Your task to perform on an android device: Open the Play Movies app and select the watchlist tab. Image 0: 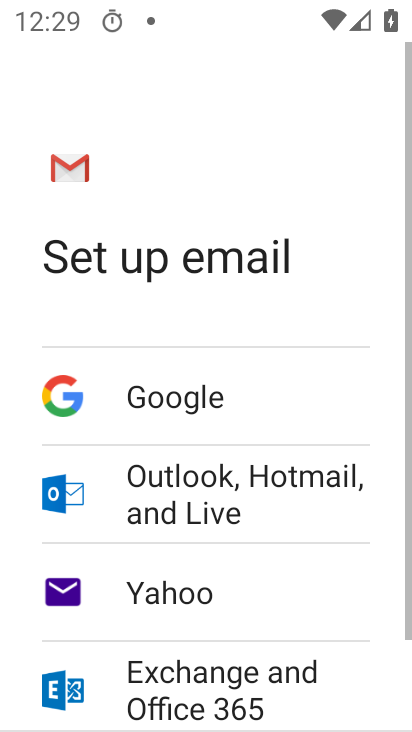
Step 0: press home button
Your task to perform on an android device: Open the Play Movies app and select the watchlist tab. Image 1: 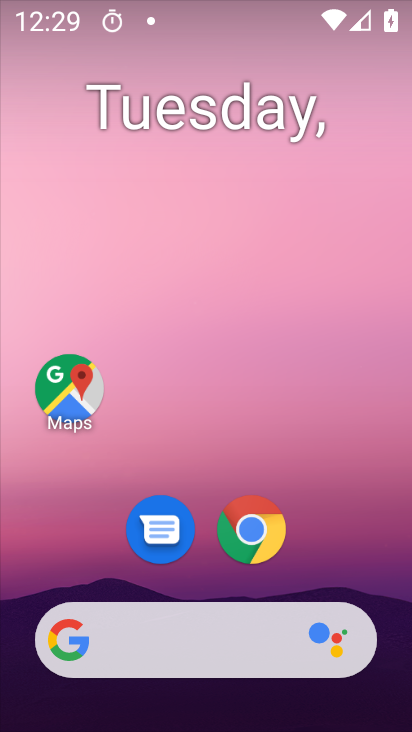
Step 1: drag from (358, 514) to (336, 26)
Your task to perform on an android device: Open the Play Movies app and select the watchlist tab. Image 2: 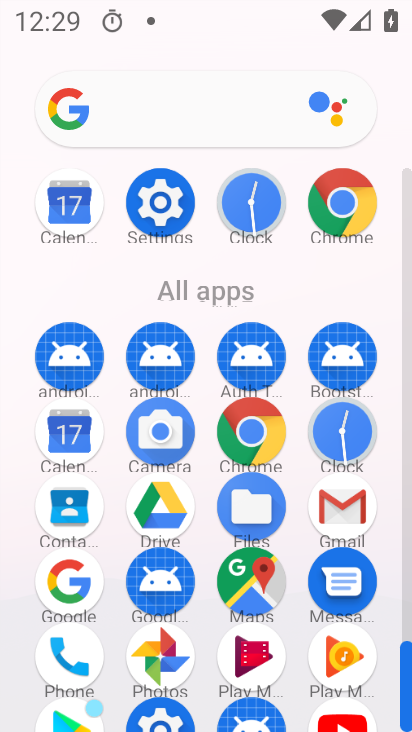
Step 2: drag from (394, 544) to (377, 223)
Your task to perform on an android device: Open the Play Movies app and select the watchlist tab. Image 3: 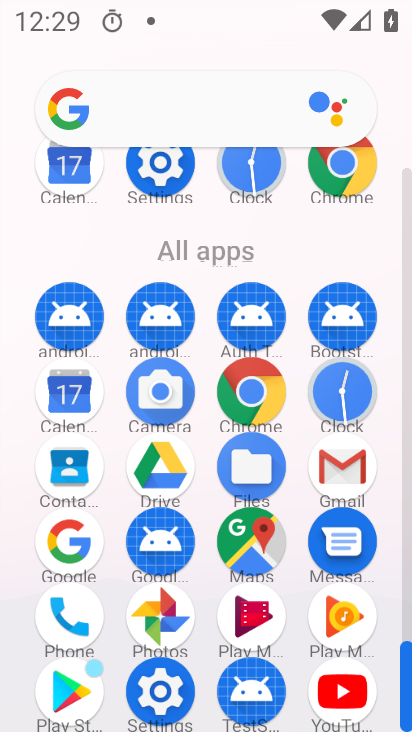
Step 3: click (244, 625)
Your task to perform on an android device: Open the Play Movies app and select the watchlist tab. Image 4: 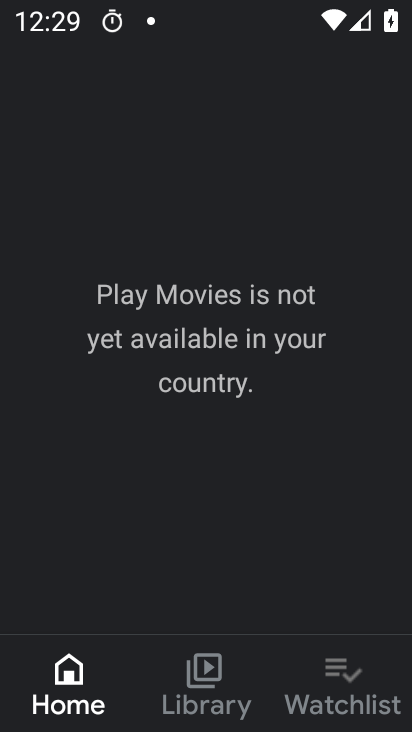
Step 4: click (345, 675)
Your task to perform on an android device: Open the Play Movies app and select the watchlist tab. Image 5: 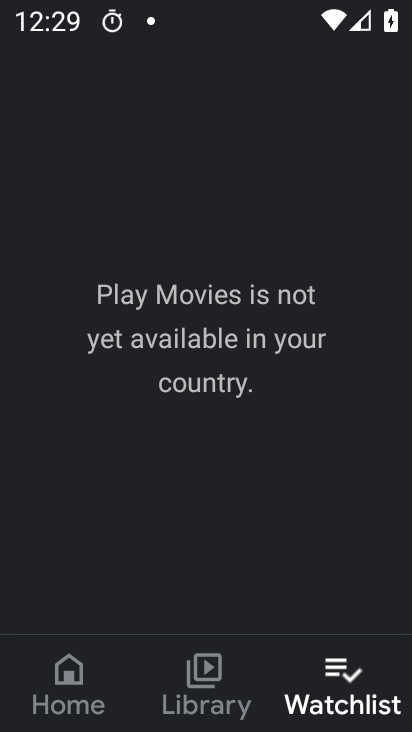
Step 5: task complete